Your task to perform on an android device: open a bookmark in the chrome app Image 0: 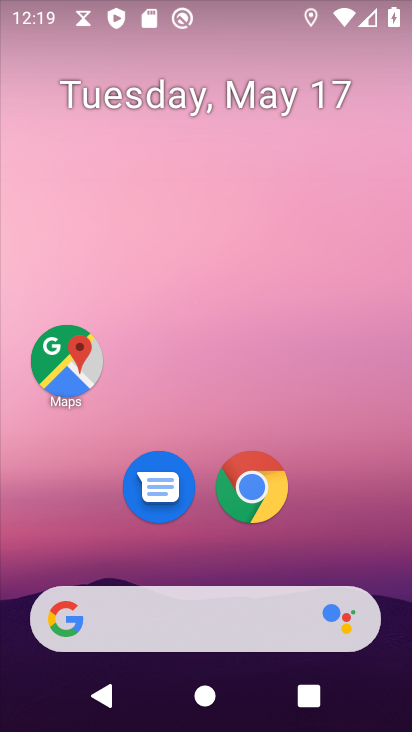
Step 0: drag from (300, 481) to (250, 0)
Your task to perform on an android device: open a bookmark in the chrome app Image 1: 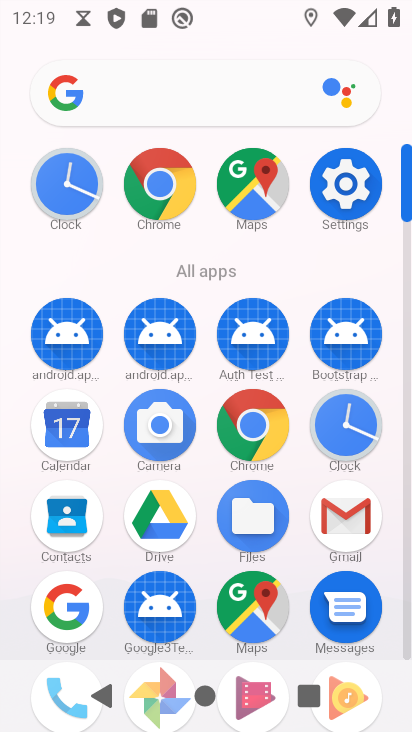
Step 1: drag from (14, 568) to (20, 250)
Your task to perform on an android device: open a bookmark in the chrome app Image 2: 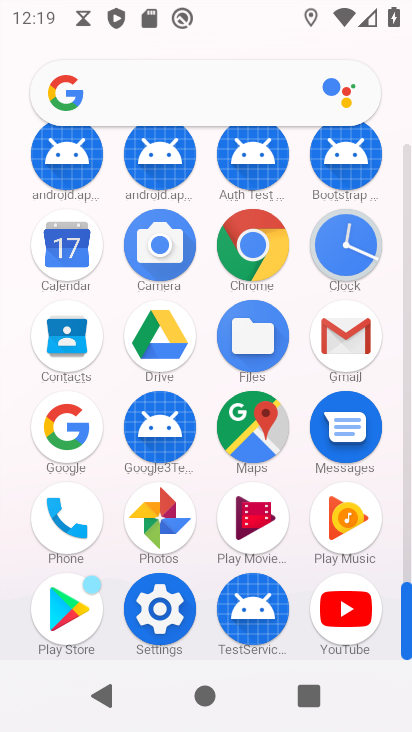
Step 2: click (252, 237)
Your task to perform on an android device: open a bookmark in the chrome app Image 3: 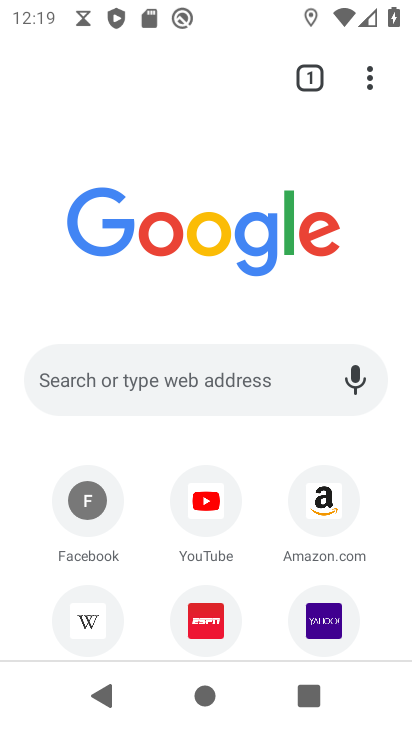
Step 3: task complete